Your task to perform on an android device: Go to sound settings Image 0: 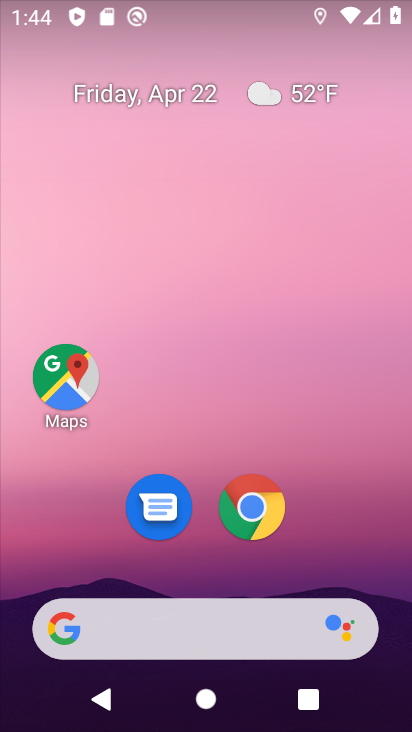
Step 0: drag from (139, 607) to (269, 80)
Your task to perform on an android device: Go to sound settings Image 1: 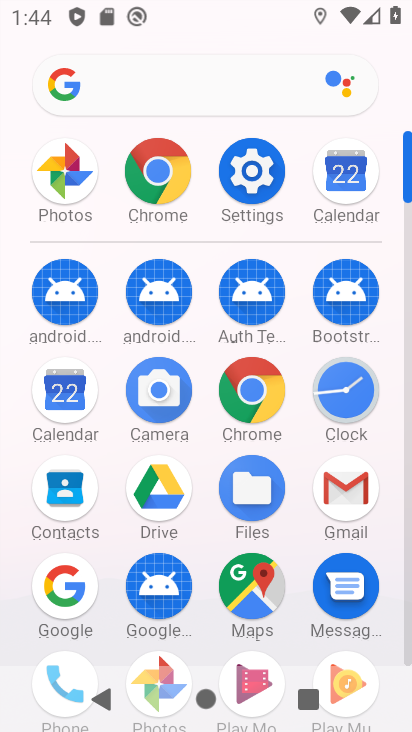
Step 1: click (253, 178)
Your task to perform on an android device: Go to sound settings Image 2: 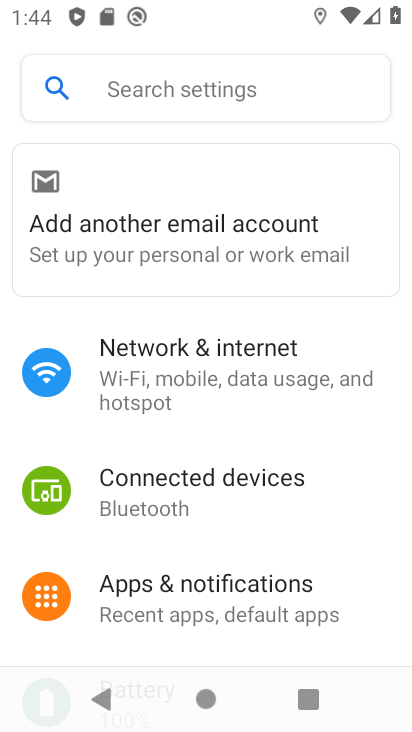
Step 2: drag from (176, 551) to (307, 283)
Your task to perform on an android device: Go to sound settings Image 3: 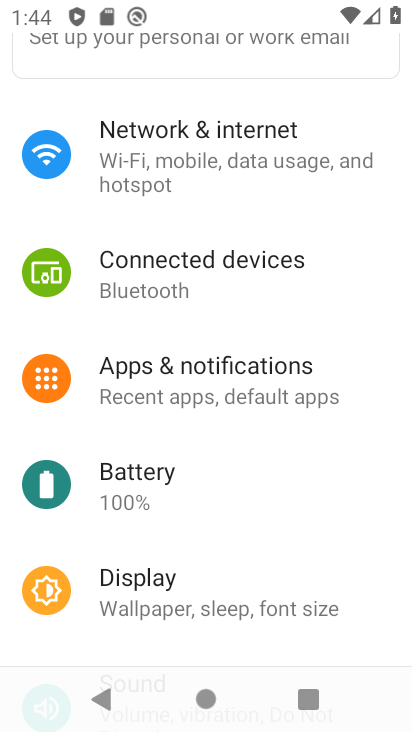
Step 3: drag from (207, 572) to (350, 228)
Your task to perform on an android device: Go to sound settings Image 4: 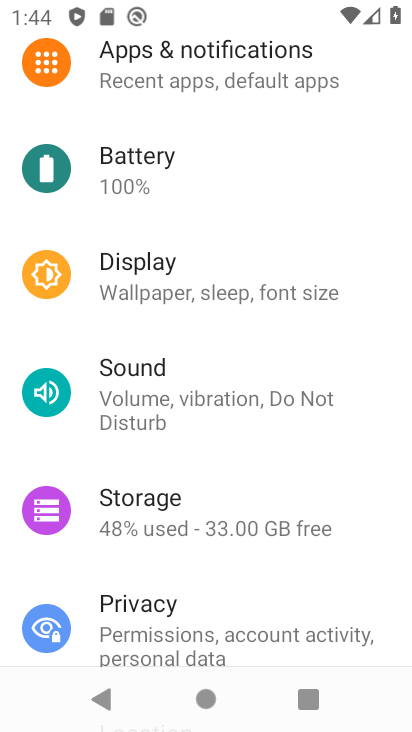
Step 4: click (150, 363)
Your task to perform on an android device: Go to sound settings Image 5: 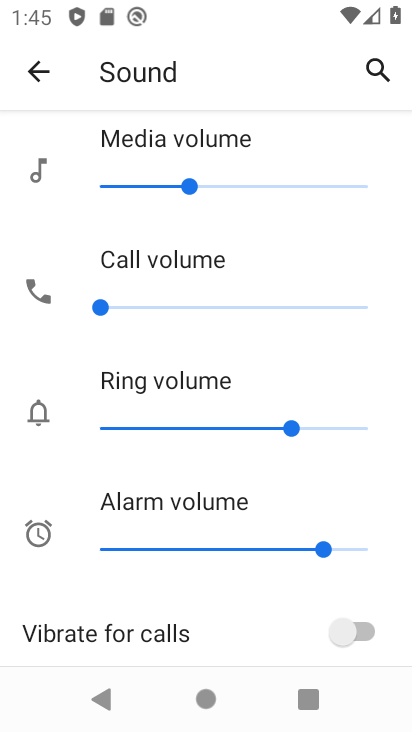
Step 5: task complete